Your task to perform on an android device: install app "Google News" Image 0: 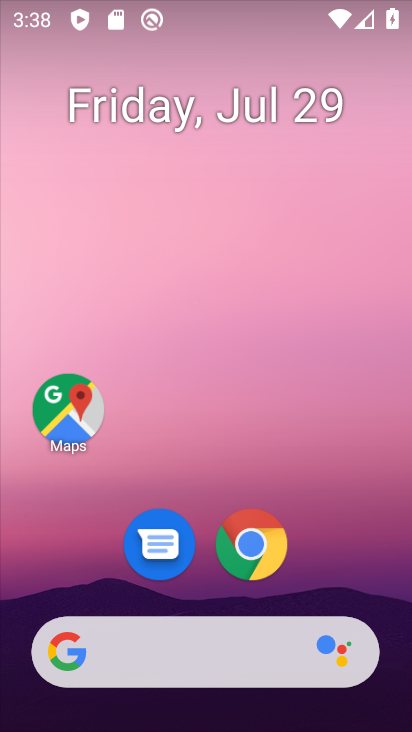
Step 0: drag from (194, 727) to (194, 427)
Your task to perform on an android device: install app "Google News" Image 1: 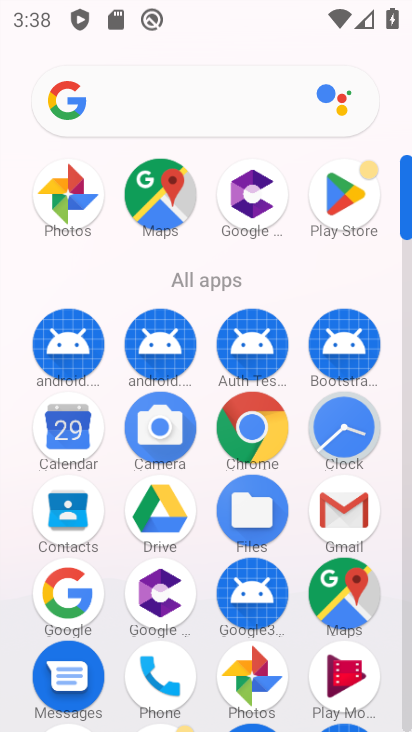
Step 1: click (348, 192)
Your task to perform on an android device: install app "Google News" Image 2: 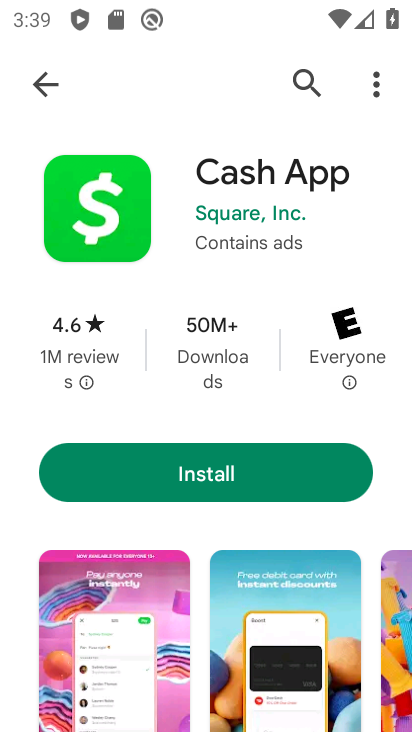
Step 2: click (299, 80)
Your task to perform on an android device: install app "Google News" Image 3: 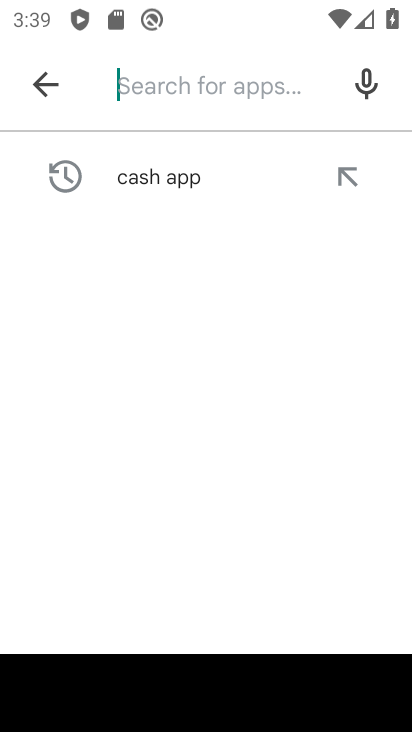
Step 3: type "Google News"
Your task to perform on an android device: install app "Google News" Image 4: 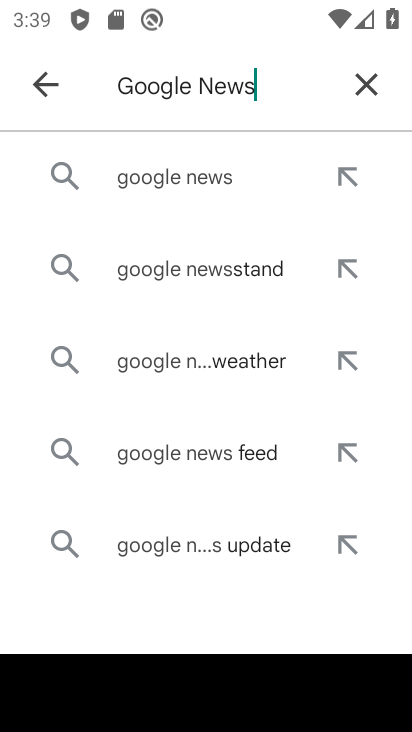
Step 4: click (197, 176)
Your task to perform on an android device: install app "Google News" Image 5: 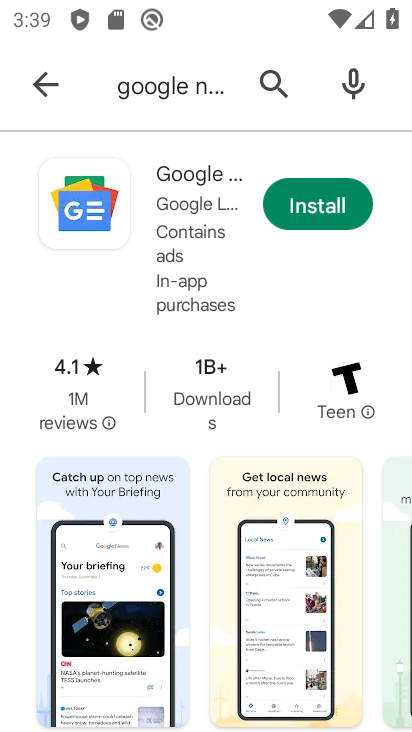
Step 5: click (186, 195)
Your task to perform on an android device: install app "Google News" Image 6: 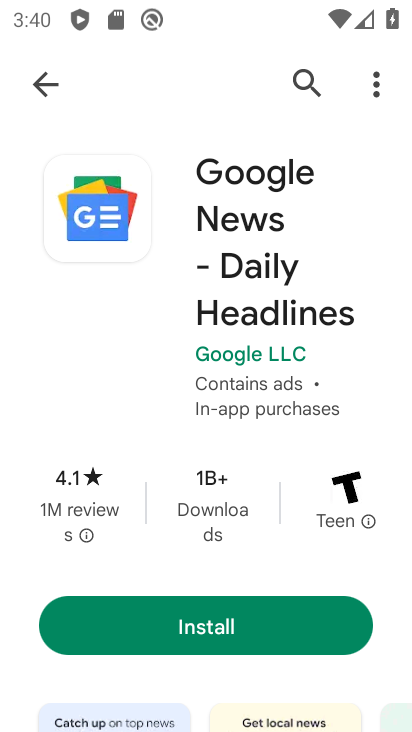
Step 6: click (187, 625)
Your task to perform on an android device: install app "Google News" Image 7: 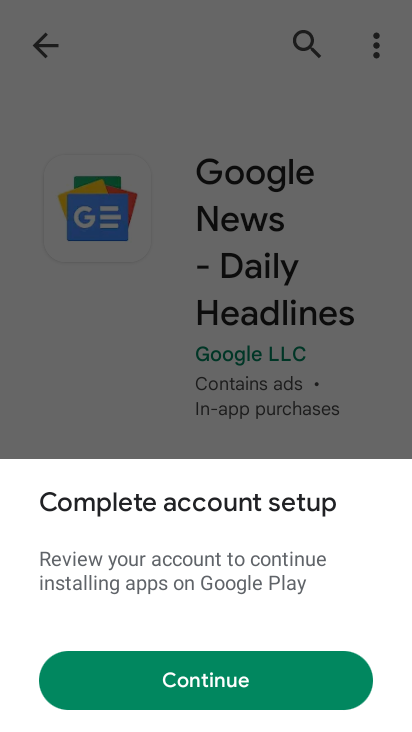
Step 7: click (199, 680)
Your task to perform on an android device: install app "Google News" Image 8: 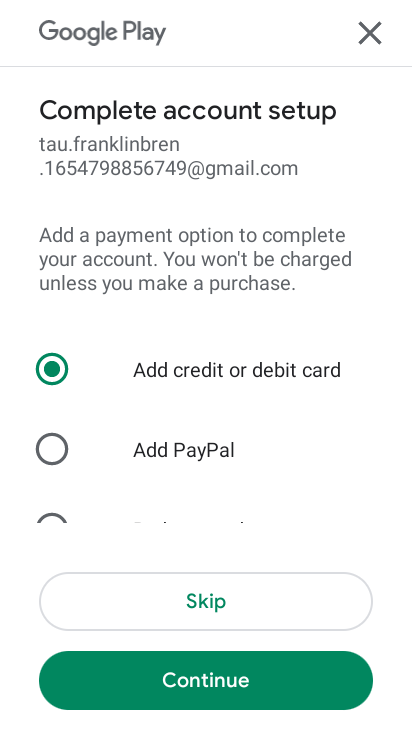
Step 8: click (198, 597)
Your task to perform on an android device: install app "Google News" Image 9: 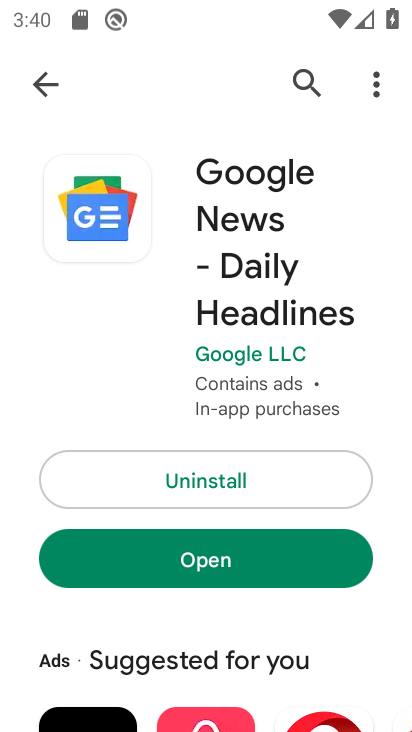
Step 9: task complete